Your task to perform on an android device: Open network settings Image 0: 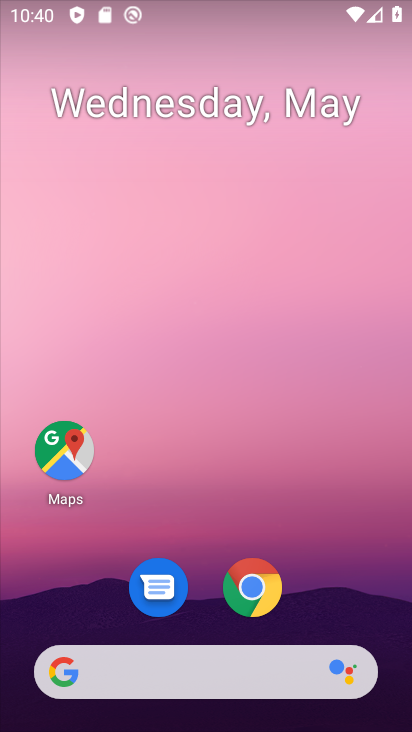
Step 0: drag from (218, 548) to (292, 93)
Your task to perform on an android device: Open network settings Image 1: 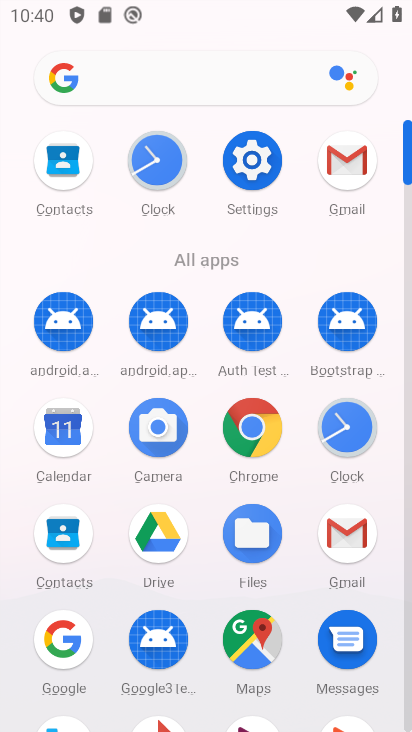
Step 1: click (265, 162)
Your task to perform on an android device: Open network settings Image 2: 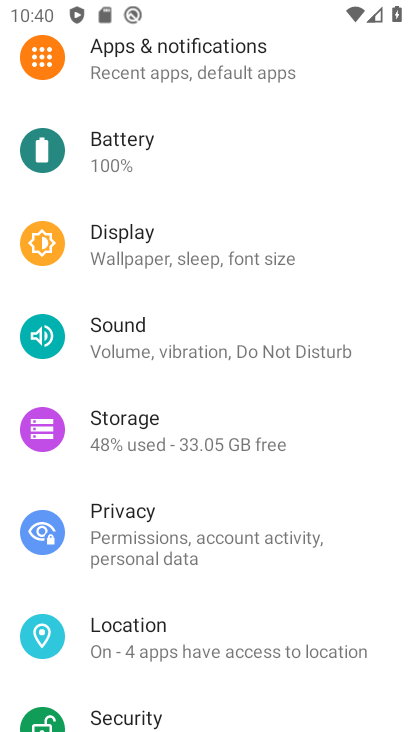
Step 2: drag from (266, 170) to (254, 689)
Your task to perform on an android device: Open network settings Image 3: 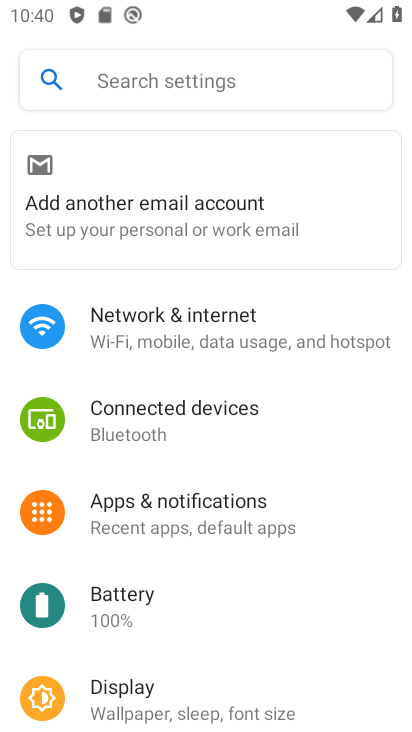
Step 3: click (229, 330)
Your task to perform on an android device: Open network settings Image 4: 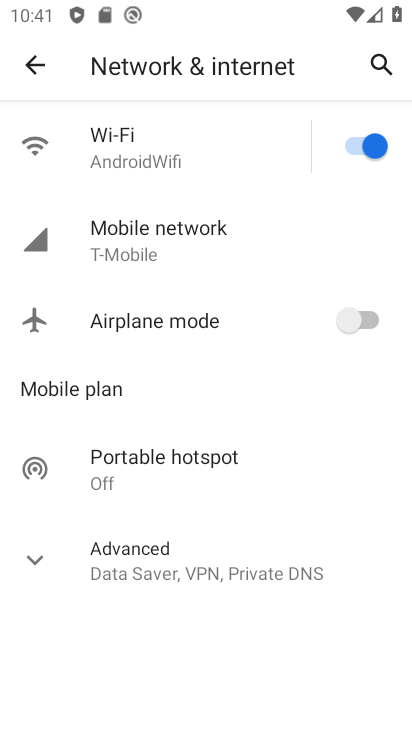
Step 4: task complete